Your task to perform on an android device: read, delete, or share a saved page in the chrome app Image 0: 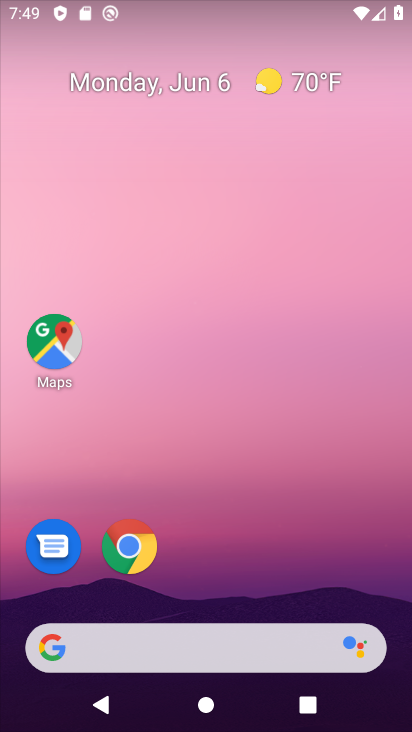
Step 0: drag from (209, 563) to (301, 50)
Your task to perform on an android device: read, delete, or share a saved page in the chrome app Image 1: 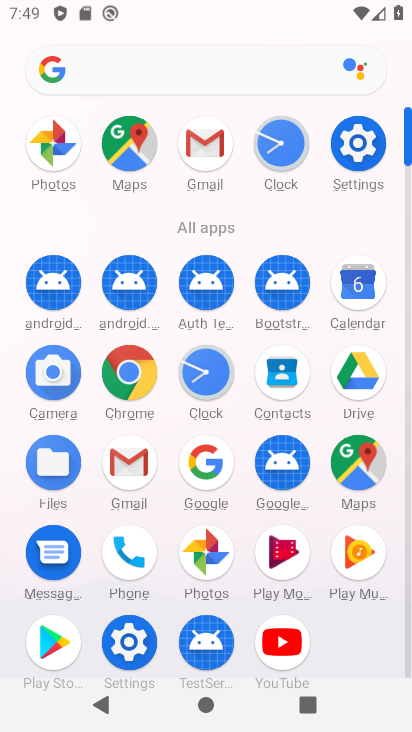
Step 1: click (119, 377)
Your task to perform on an android device: read, delete, or share a saved page in the chrome app Image 2: 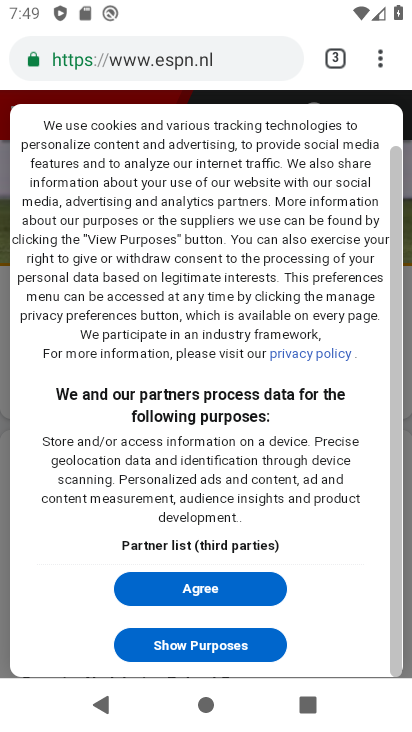
Step 2: click (304, 256)
Your task to perform on an android device: read, delete, or share a saved page in the chrome app Image 3: 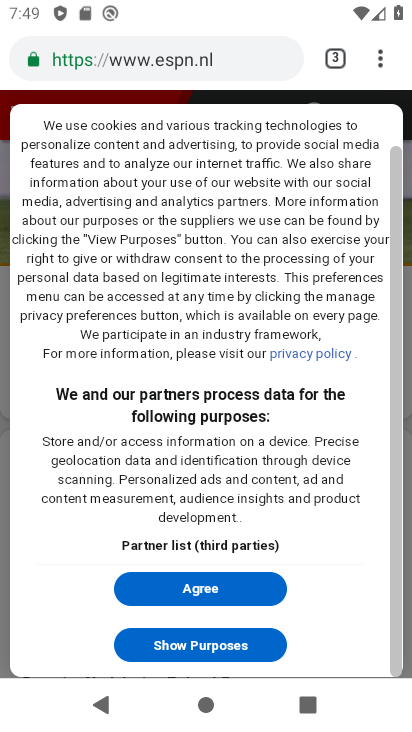
Step 3: click (387, 61)
Your task to perform on an android device: read, delete, or share a saved page in the chrome app Image 4: 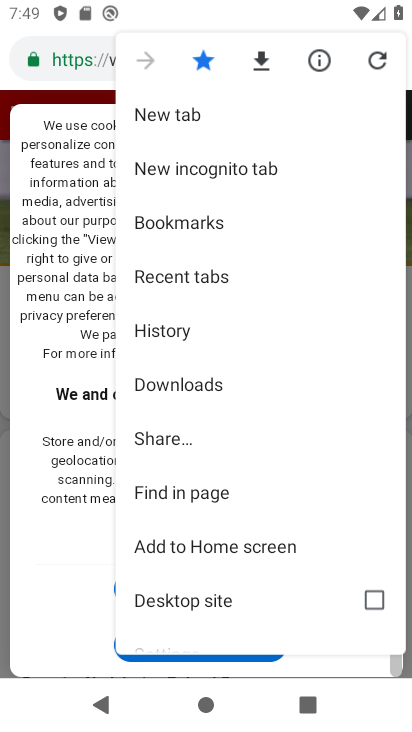
Step 4: drag from (188, 563) to (297, 91)
Your task to perform on an android device: read, delete, or share a saved page in the chrome app Image 5: 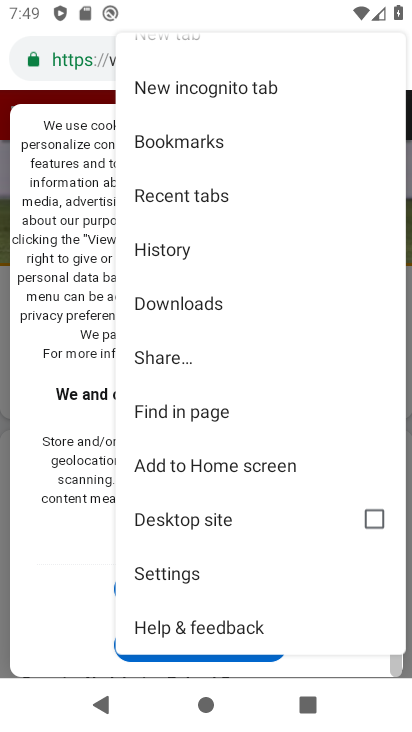
Step 5: click (239, 149)
Your task to perform on an android device: read, delete, or share a saved page in the chrome app Image 6: 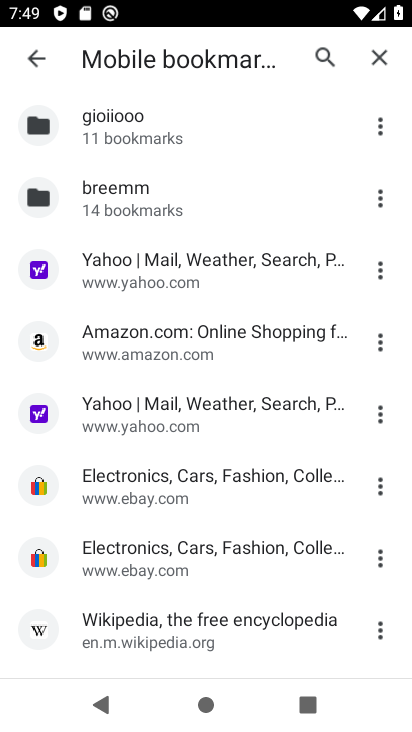
Step 6: drag from (249, 578) to (330, 46)
Your task to perform on an android device: read, delete, or share a saved page in the chrome app Image 7: 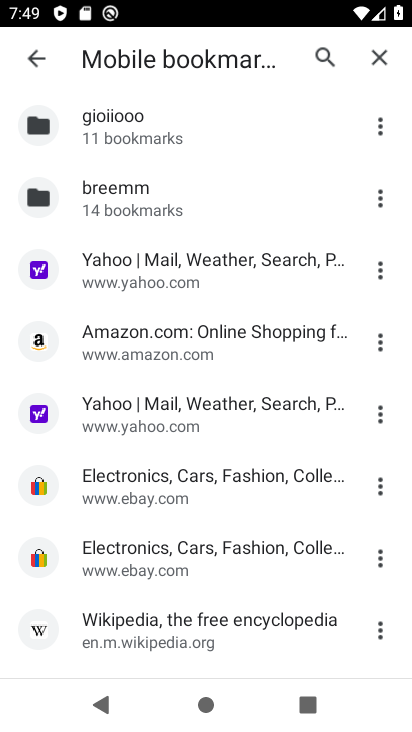
Step 7: click (375, 204)
Your task to perform on an android device: read, delete, or share a saved page in the chrome app Image 8: 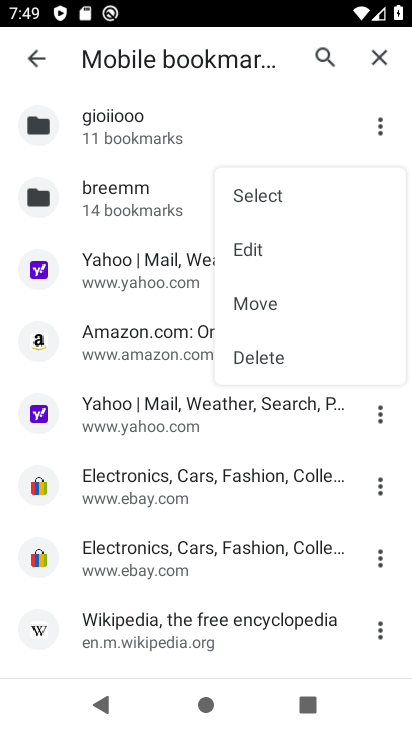
Step 8: click (271, 365)
Your task to perform on an android device: read, delete, or share a saved page in the chrome app Image 9: 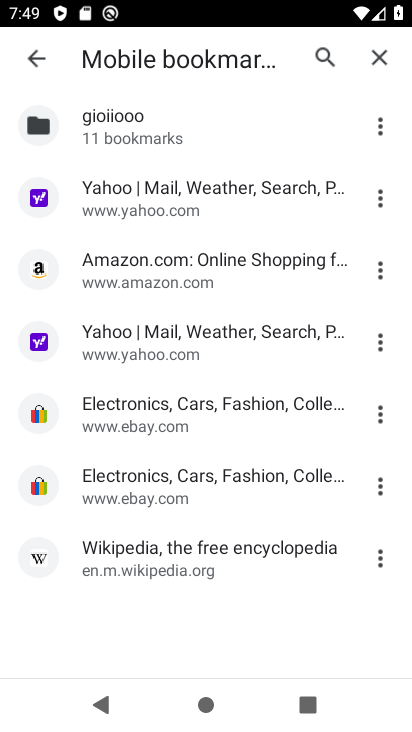
Step 9: click (380, 258)
Your task to perform on an android device: read, delete, or share a saved page in the chrome app Image 10: 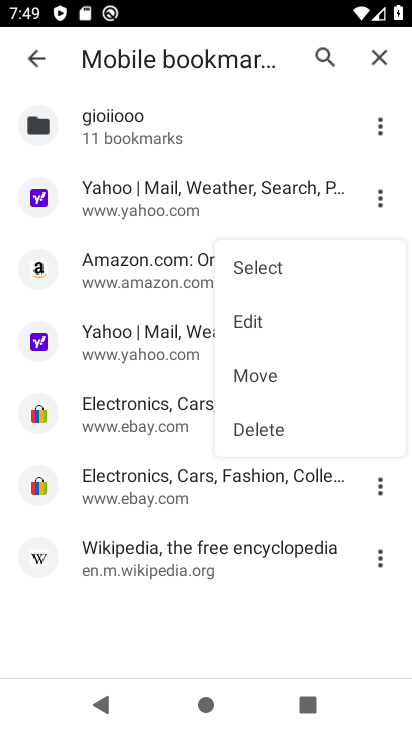
Step 10: click (132, 262)
Your task to perform on an android device: read, delete, or share a saved page in the chrome app Image 11: 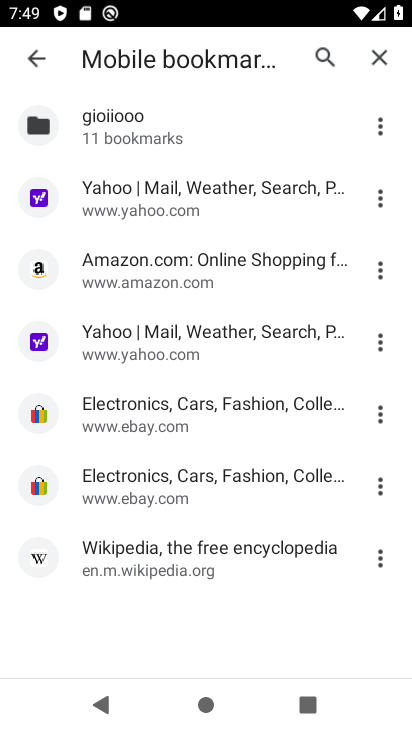
Step 11: click (126, 262)
Your task to perform on an android device: read, delete, or share a saved page in the chrome app Image 12: 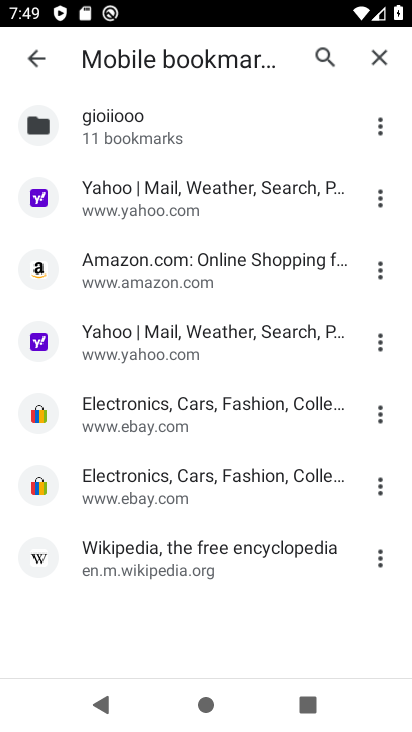
Step 12: task complete